Your task to perform on an android device: install app "DoorDash - Dasher" Image 0: 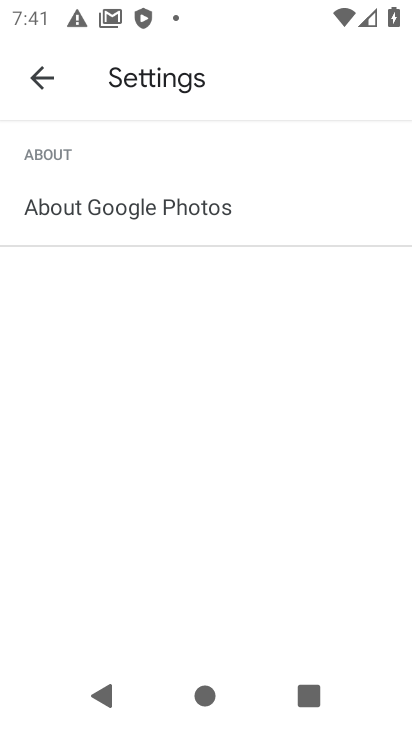
Step 0: press home button
Your task to perform on an android device: install app "DoorDash - Dasher" Image 1: 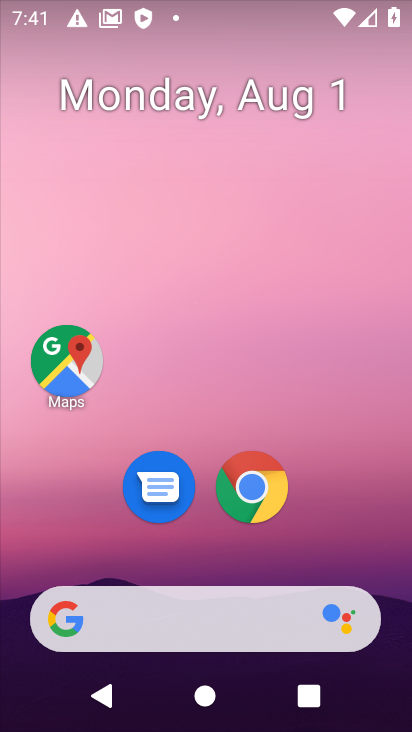
Step 1: drag from (377, 539) to (364, 74)
Your task to perform on an android device: install app "DoorDash - Dasher" Image 2: 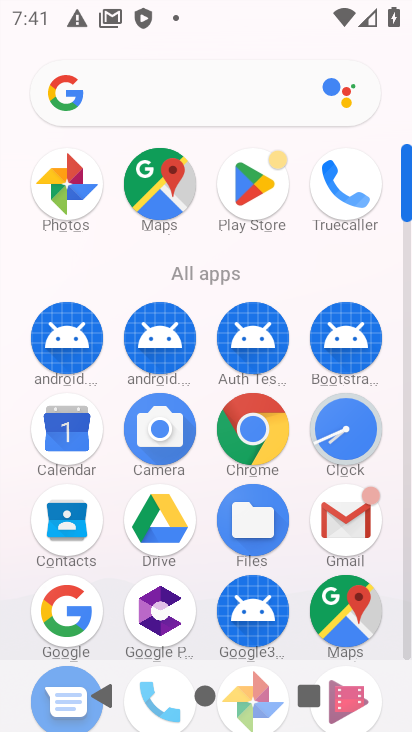
Step 2: click (254, 185)
Your task to perform on an android device: install app "DoorDash - Dasher" Image 3: 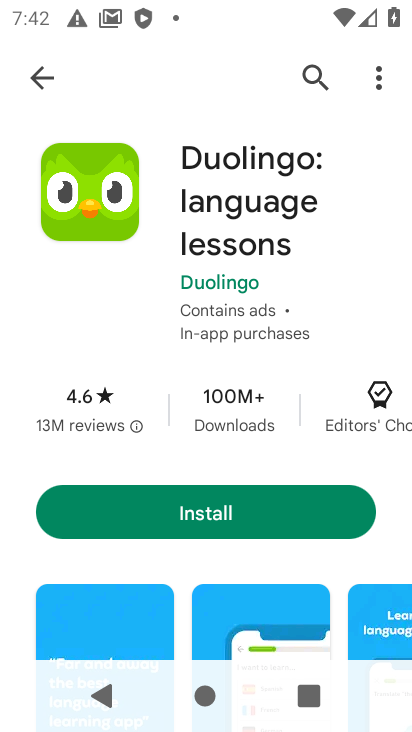
Step 3: click (317, 68)
Your task to perform on an android device: install app "DoorDash - Dasher" Image 4: 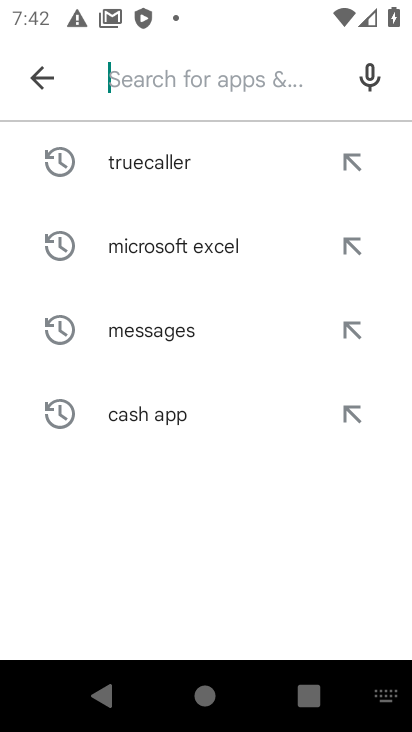
Step 4: click (268, 96)
Your task to perform on an android device: install app "DoorDash - Dasher" Image 5: 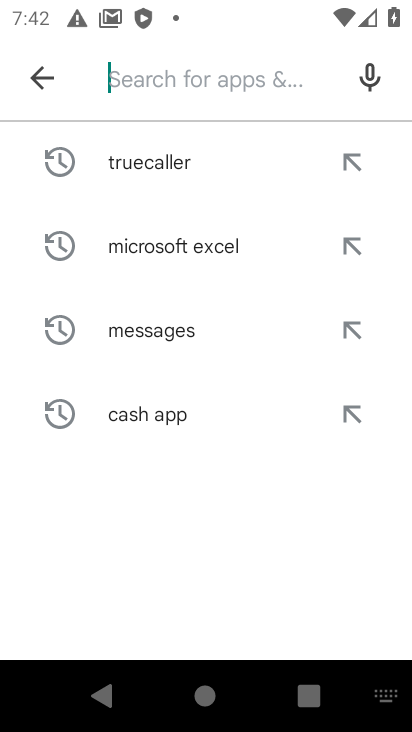
Step 5: type "doordash dasher"
Your task to perform on an android device: install app "DoorDash - Dasher" Image 6: 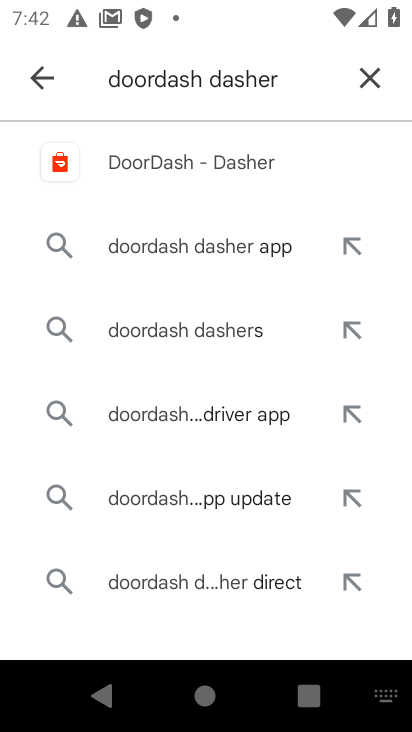
Step 6: click (246, 156)
Your task to perform on an android device: install app "DoorDash - Dasher" Image 7: 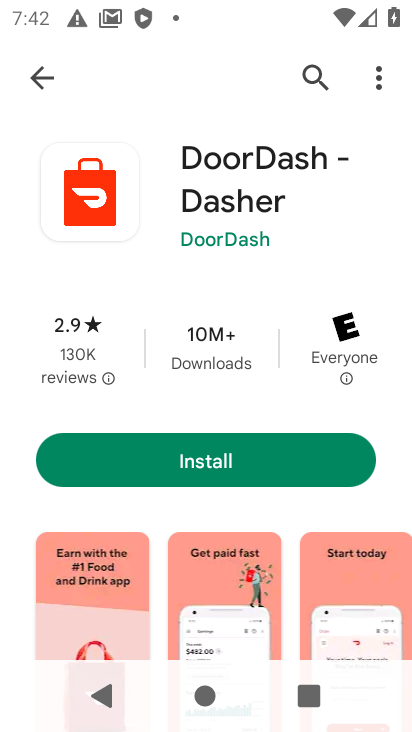
Step 7: click (267, 470)
Your task to perform on an android device: install app "DoorDash - Dasher" Image 8: 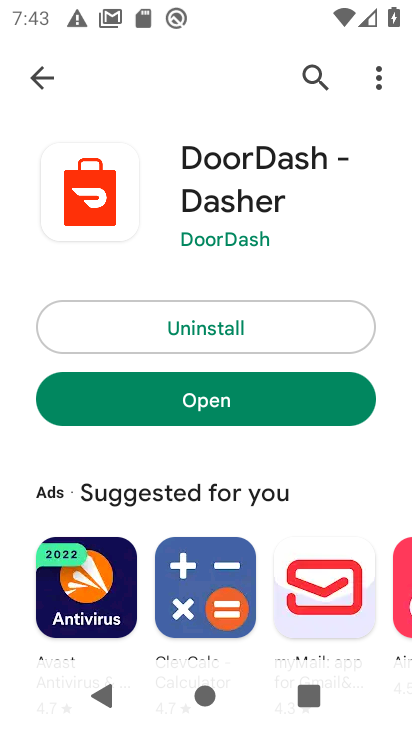
Step 8: task complete